Your task to perform on an android device: Open eBay Image 0: 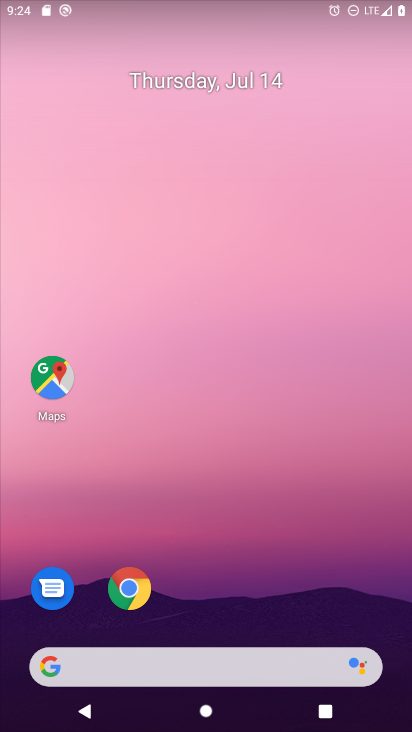
Step 0: drag from (186, 580) to (308, 56)
Your task to perform on an android device: Open eBay Image 1: 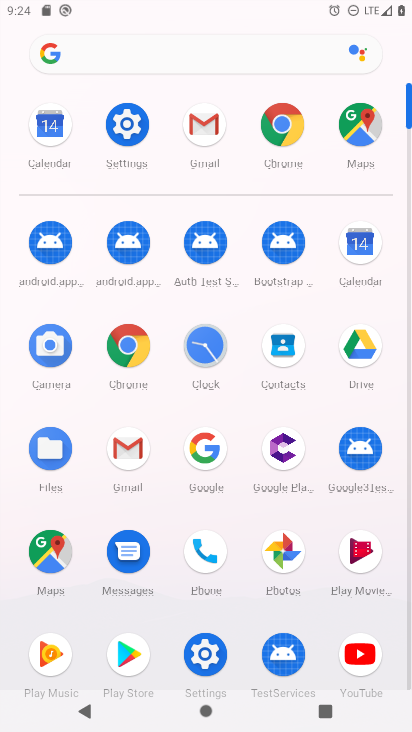
Step 1: click (268, 134)
Your task to perform on an android device: Open eBay Image 2: 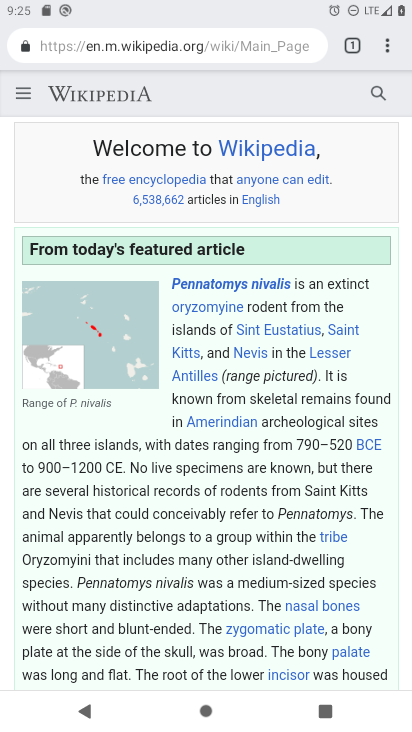
Step 2: click (259, 40)
Your task to perform on an android device: Open eBay Image 3: 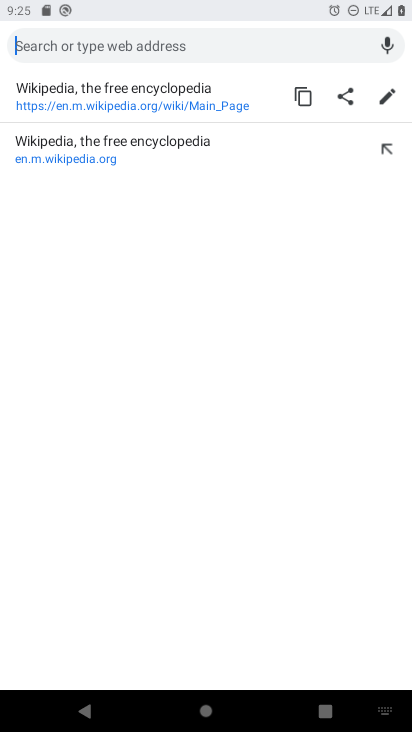
Step 3: type "eBay"
Your task to perform on an android device: Open eBay Image 4: 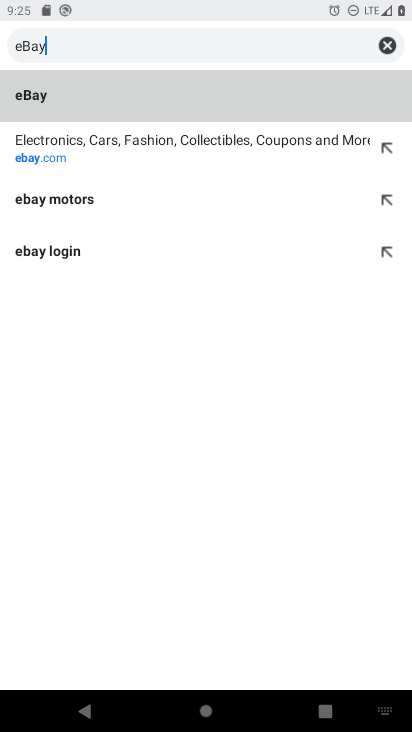
Step 4: click (25, 156)
Your task to perform on an android device: Open eBay Image 5: 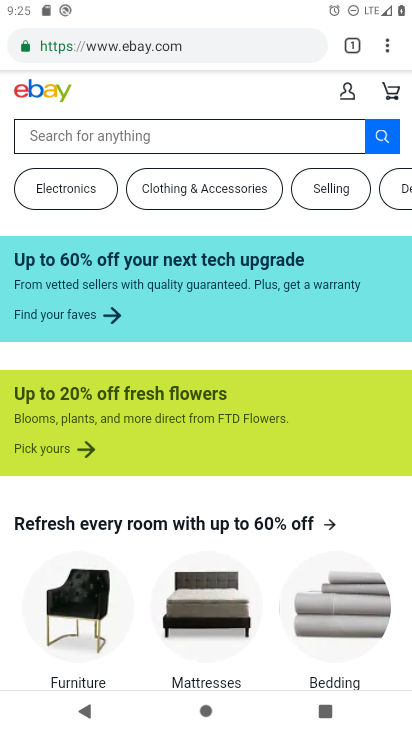
Step 5: task complete